Your task to perform on an android device: turn on the 24-hour format for clock Image 0: 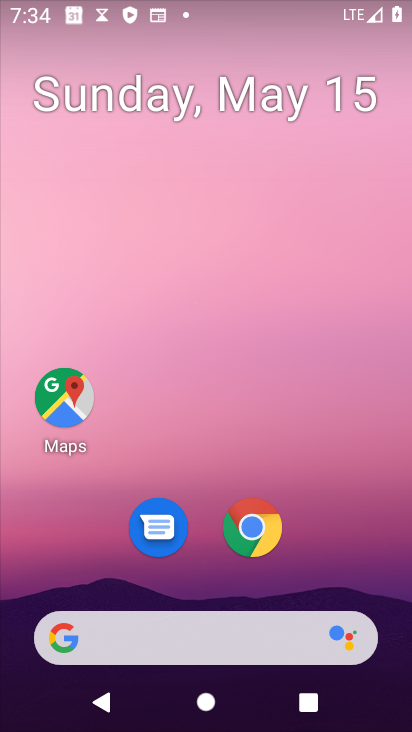
Step 0: drag from (382, 508) to (336, 4)
Your task to perform on an android device: turn on the 24-hour format for clock Image 1: 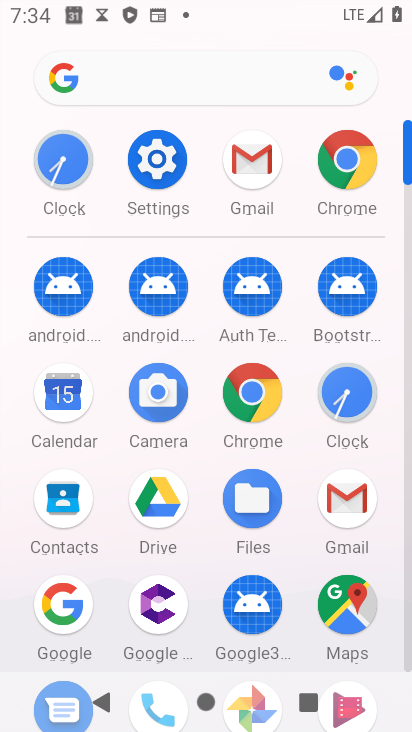
Step 1: click (61, 170)
Your task to perform on an android device: turn on the 24-hour format for clock Image 2: 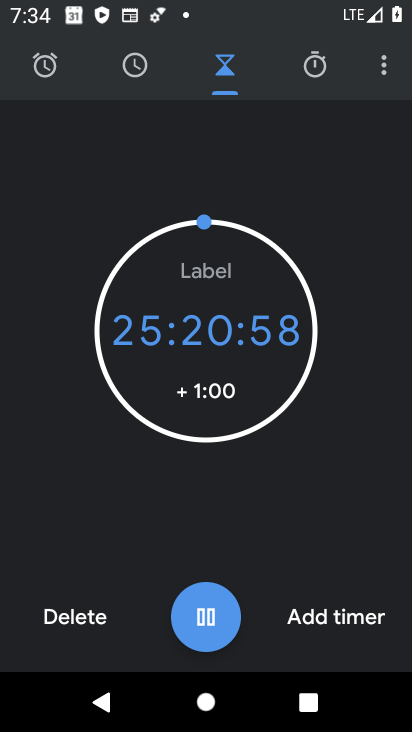
Step 2: click (389, 51)
Your task to perform on an android device: turn on the 24-hour format for clock Image 3: 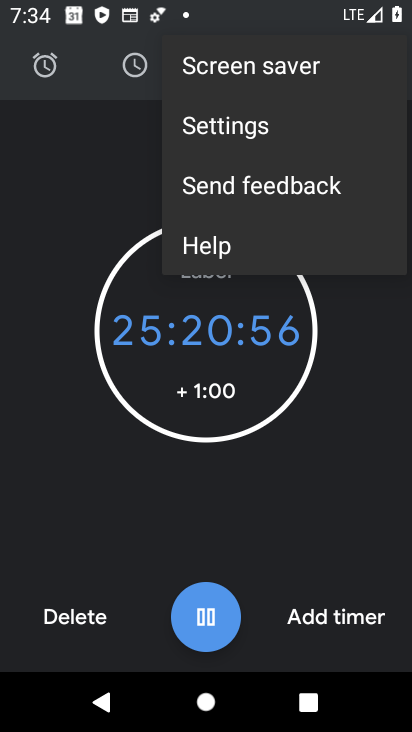
Step 3: click (200, 136)
Your task to perform on an android device: turn on the 24-hour format for clock Image 4: 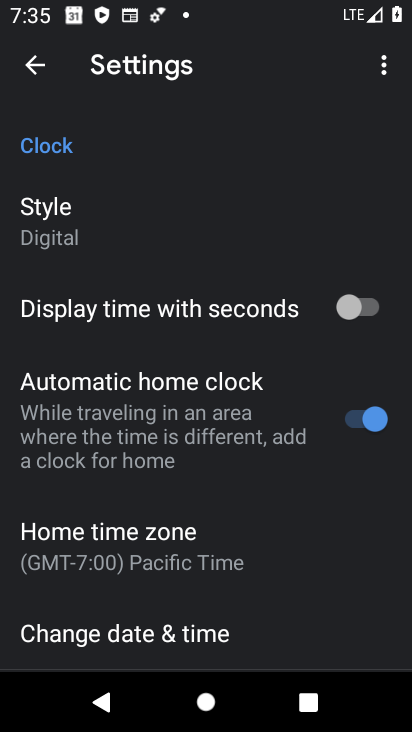
Step 4: drag from (213, 598) to (307, 191)
Your task to perform on an android device: turn on the 24-hour format for clock Image 5: 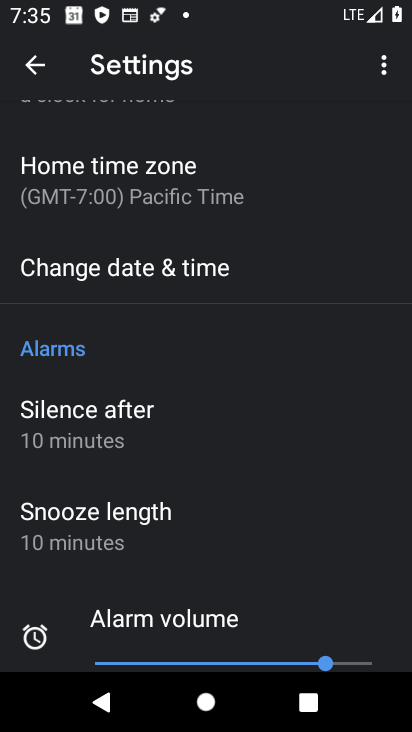
Step 5: click (156, 286)
Your task to perform on an android device: turn on the 24-hour format for clock Image 6: 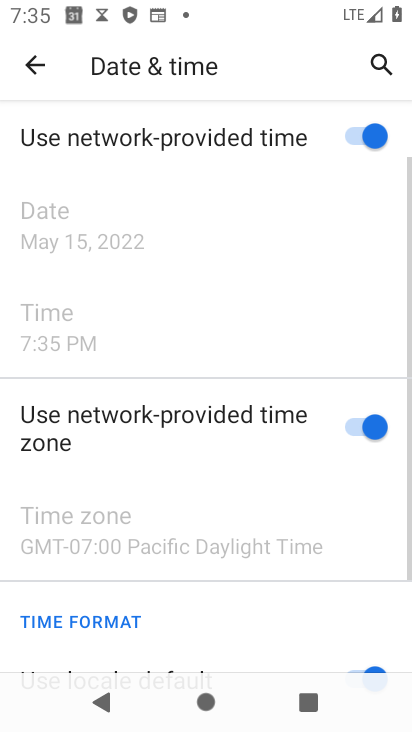
Step 6: drag from (186, 534) to (252, 170)
Your task to perform on an android device: turn on the 24-hour format for clock Image 7: 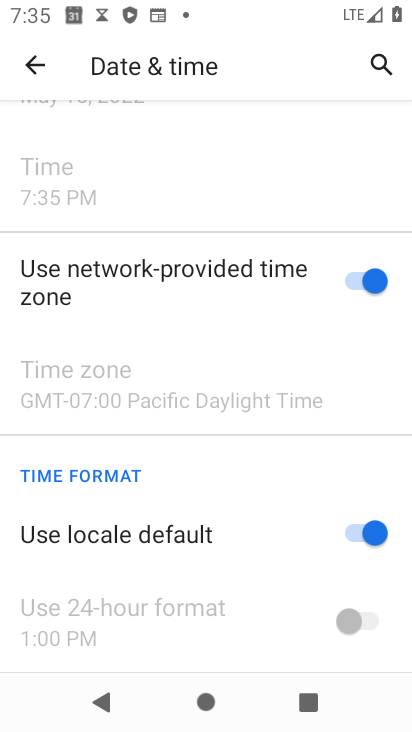
Step 7: drag from (227, 548) to (315, 79)
Your task to perform on an android device: turn on the 24-hour format for clock Image 8: 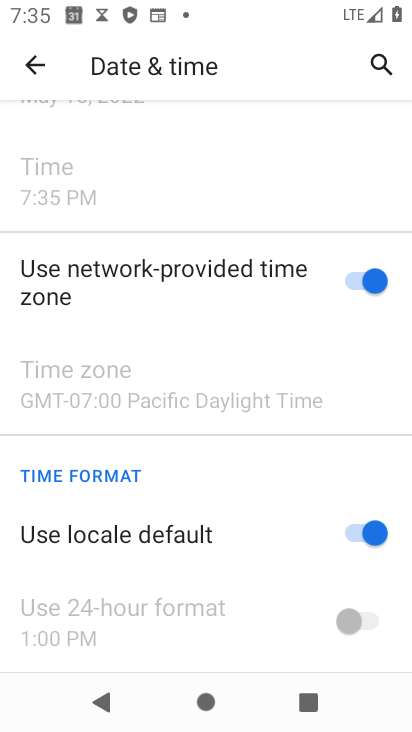
Step 8: click (378, 531)
Your task to perform on an android device: turn on the 24-hour format for clock Image 9: 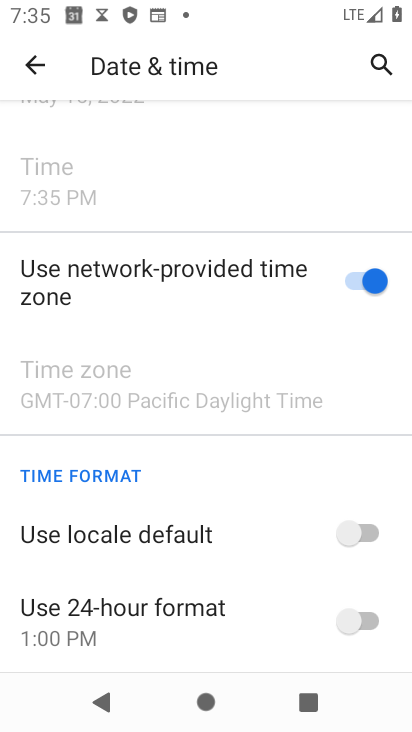
Step 9: task complete